Your task to perform on an android device: allow cookies in the chrome app Image 0: 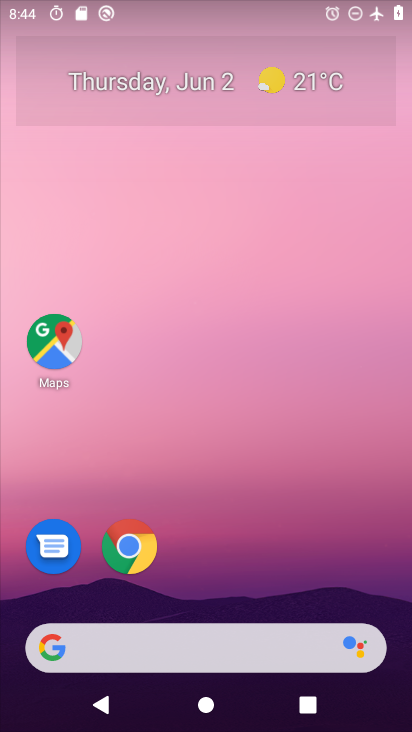
Step 0: drag from (374, 596) to (362, 113)
Your task to perform on an android device: allow cookies in the chrome app Image 1: 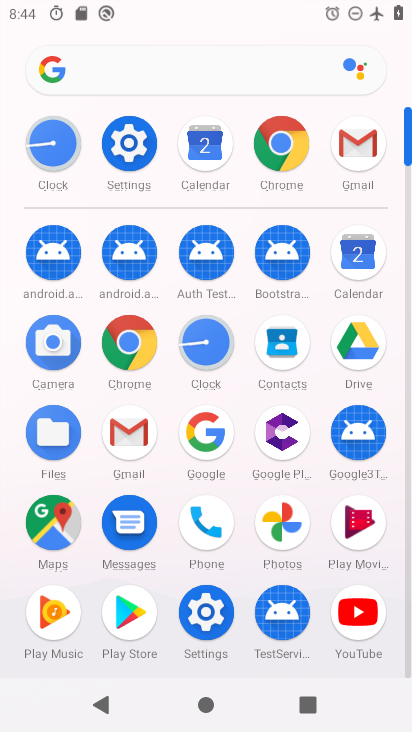
Step 1: click (119, 344)
Your task to perform on an android device: allow cookies in the chrome app Image 2: 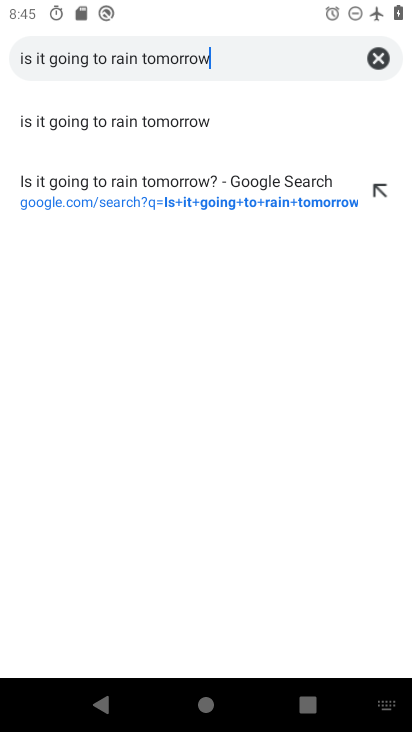
Step 2: click (378, 54)
Your task to perform on an android device: allow cookies in the chrome app Image 3: 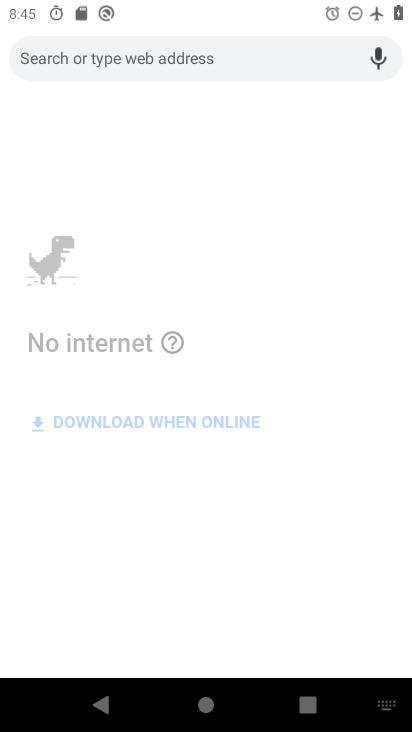
Step 3: press back button
Your task to perform on an android device: allow cookies in the chrome app Image 4: 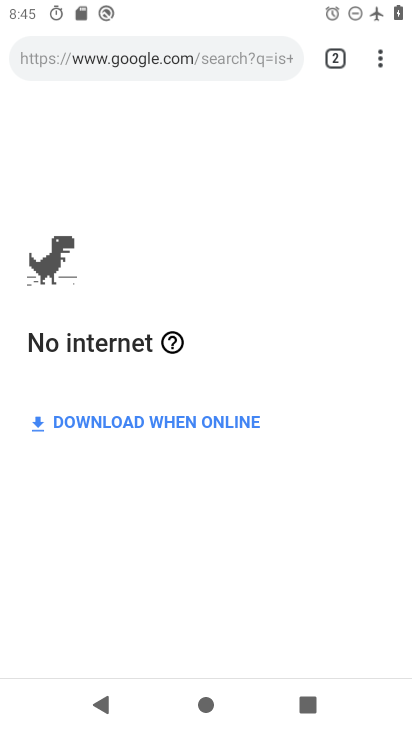
Step 4: drag from (377, 63) to (256, 588)
Your task to perform on an android device: allow cookies in the chrome app Image 5: 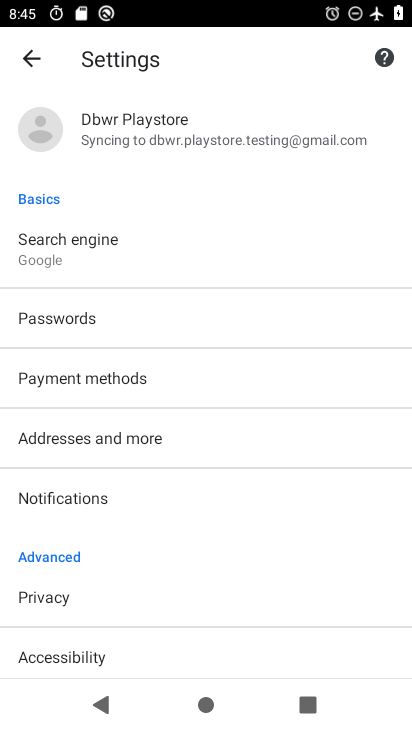
Step 5: drag from (277, 637) to (285, 254)
Your task to perform on an android device: allow cookies in the chrome app Image 6: 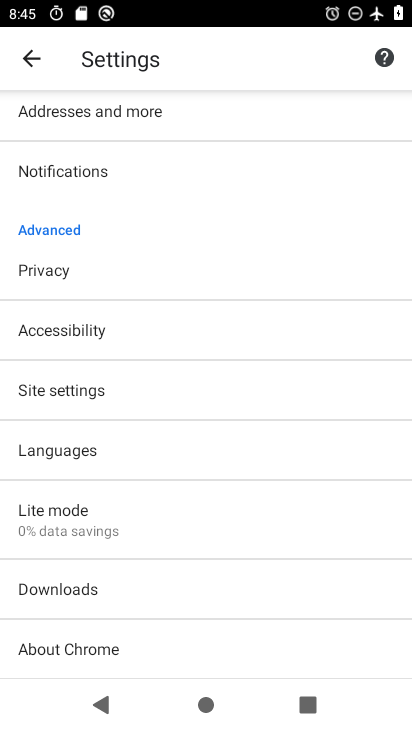
Step 6: drag from (238, 611) to (249, 369)
Your task to perform on an android device: allow cookies in the chrome app Image 7: 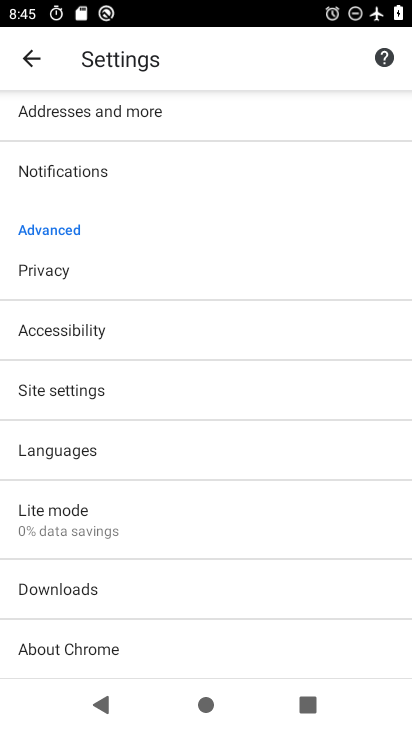
Step 7: click (116, 397)
Your task to perform on an android device: allow cookies in the chrome app Image 8: 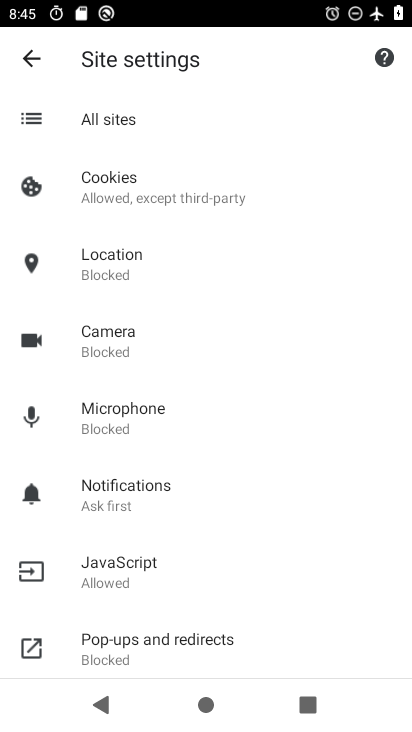
Step 8: click (170, 194)
Your task to perform on an android device: allow cookies in the chrome app Image 9: 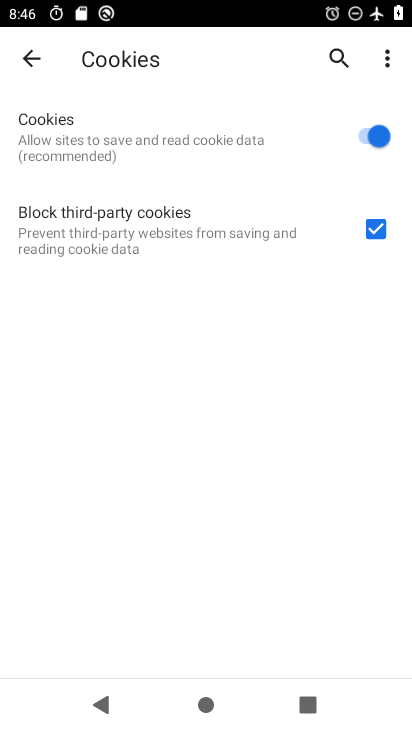
Step 9: task complete